Your task to perform on an android device: Open Wikipedia Image 0: 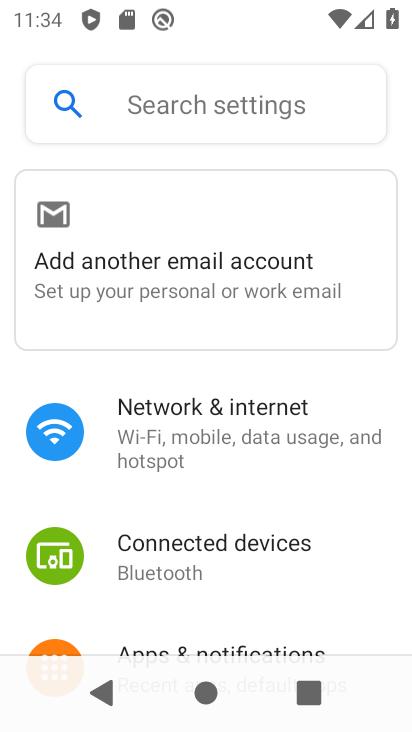
Step 0: press home button
Your task to perform on an android device: Open Wikipedia Image 1: 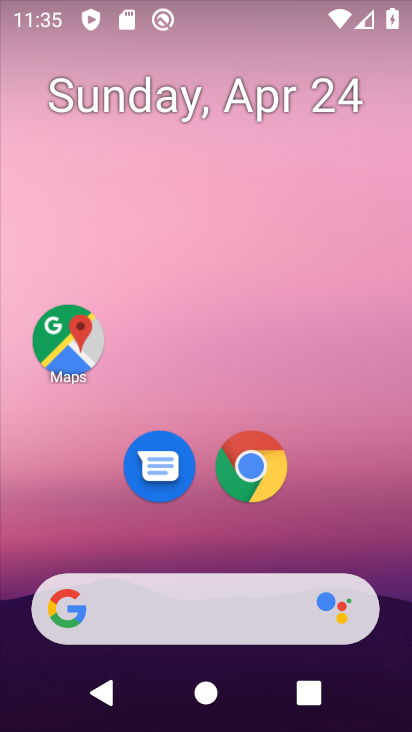
Step 1: click (257, 459)
Your task to perform on an android device: Open Wikipedia Image 2: 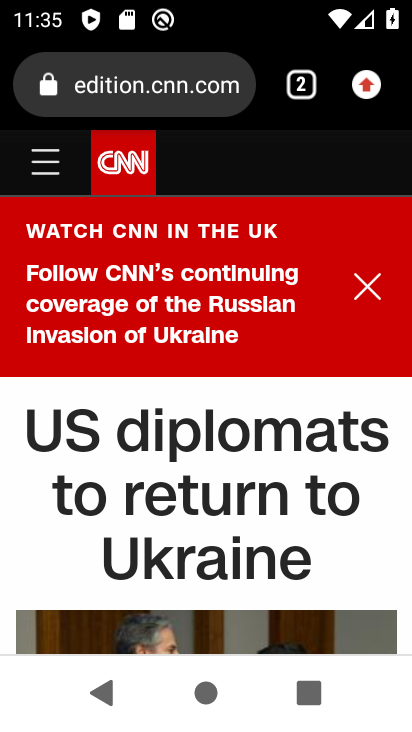
Step 2: click (303, 65)
Your task to perform on an android device: Open Wikipedia Image 3: 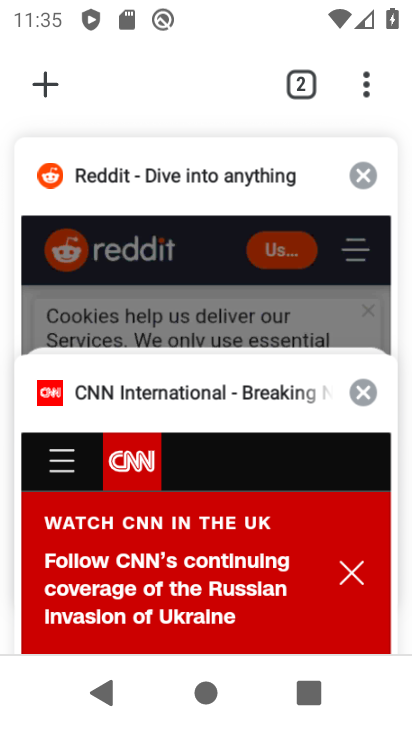
Step 3: click (44, 73)
Your task to perform on an android device: Open Wikipedia Image 4: 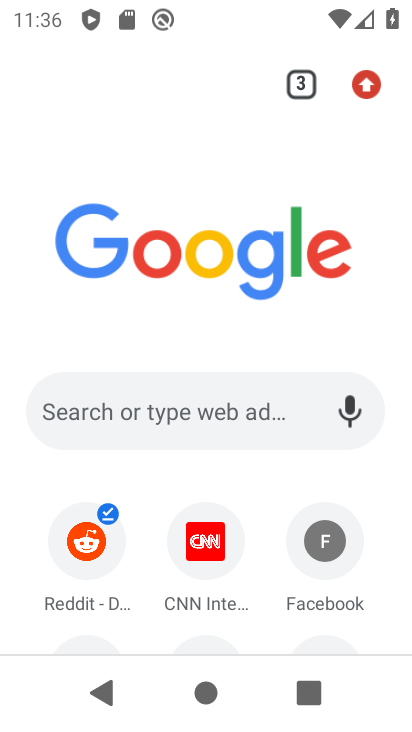
Step 4: drag from (253, 488) to (168, 132)
Your task to perform on an android device: Open Wikipedia Image 5: 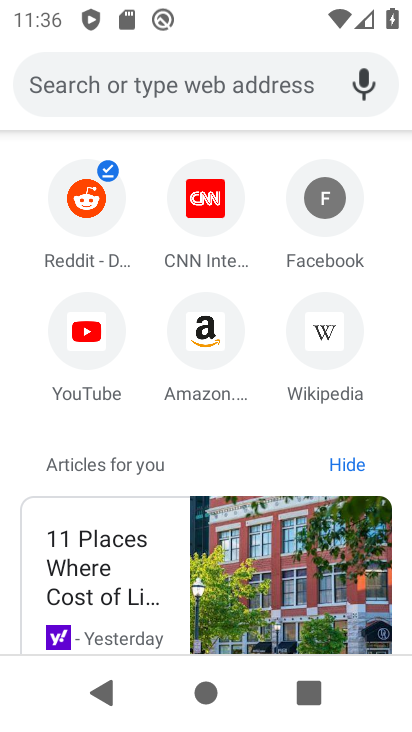
Step 5: click (345, 350)
Your task to perform on an android device: Open Wikipedia Image 6: 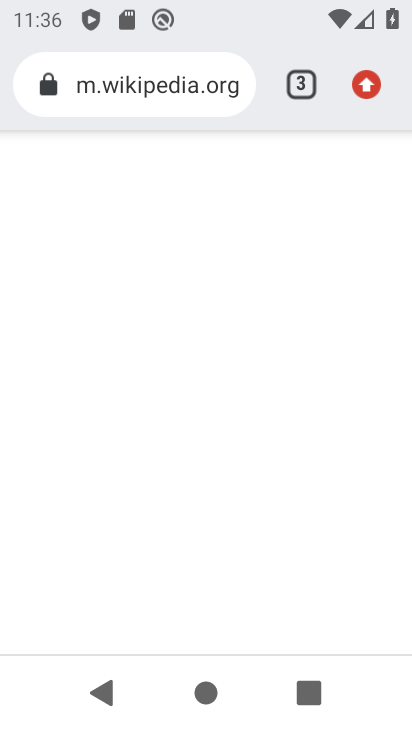
Step 6: task complete